Your task to perform on an android device: turn on bluetooth scan Image 0: 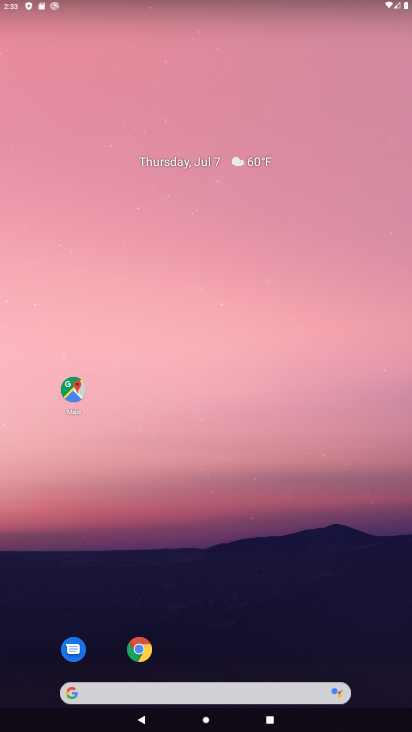
Step 0: drag from (222, 601) to (235, 38)
Your task to perform on an android device: turn on bluetooth scan Image 1: 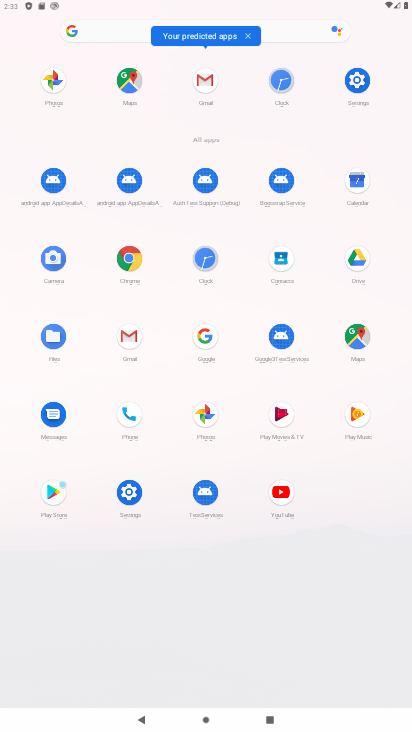
Step 1: click (135, 495)
Your task to perform on an android device: turn on bluetooth scan Image 2: 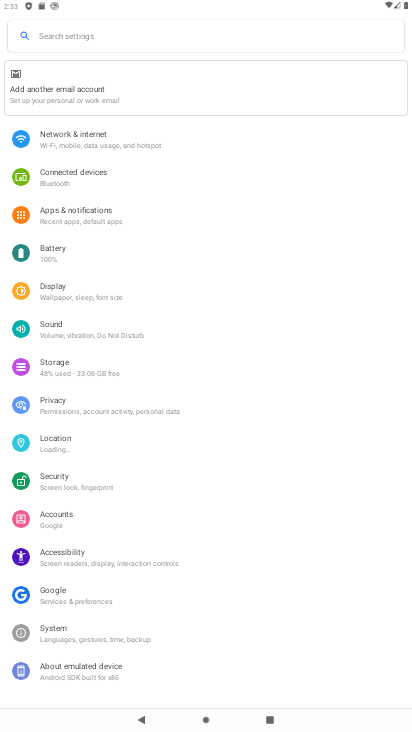
Step 2: click (122, 187)
Your task to perform on an android device: turn on bluetooth scan Image 3: 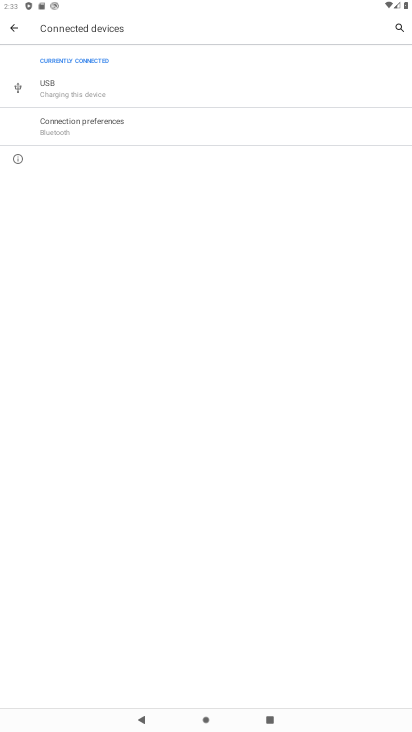
Step 3: click (131, 116)
Your task to perform on an android device: turn on bluetooth scan Image 4: 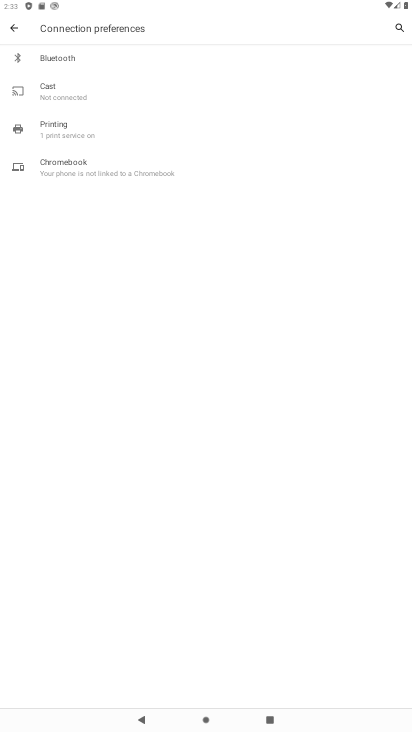
Step 4: click (151, 68)
Your task to perform on an android device: turn on bluetooth scan Image 5: 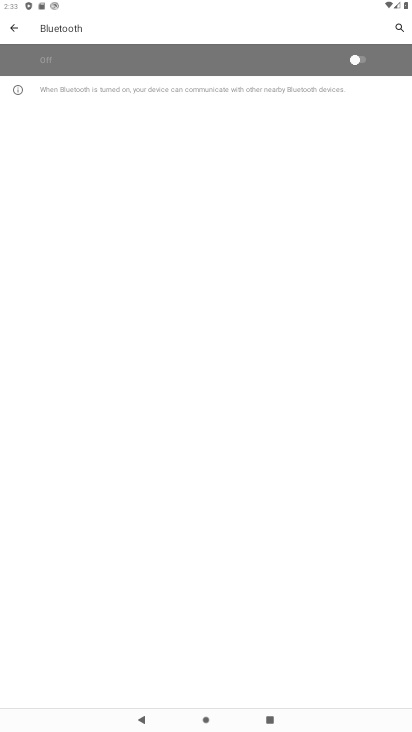
Step 5: click (364, 58)
Your task to perform on an android device: turn on bluetooth scan Image 6: 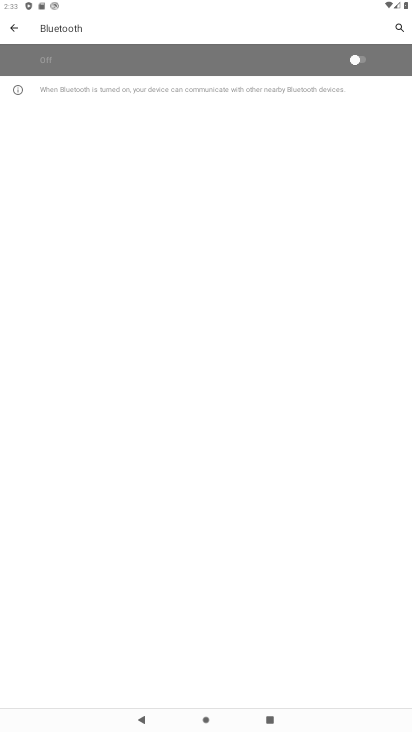
Step 6: click (364, 58)
Your task to perform on an android device: turn on bluetooth scan Image 7: 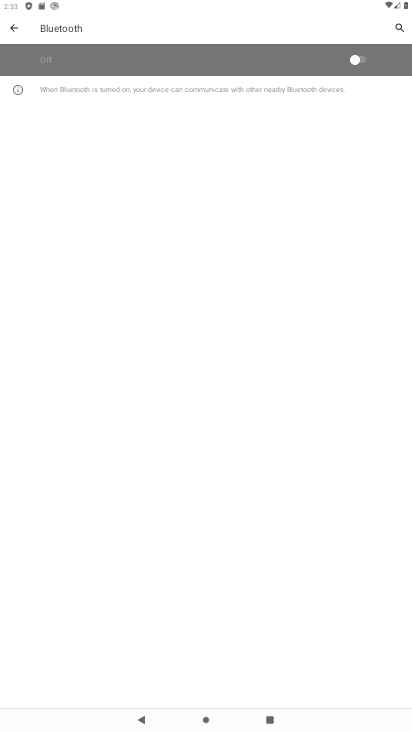
Step 7: task complete